Your task to perform on an android device: Open battery settings Image 0: 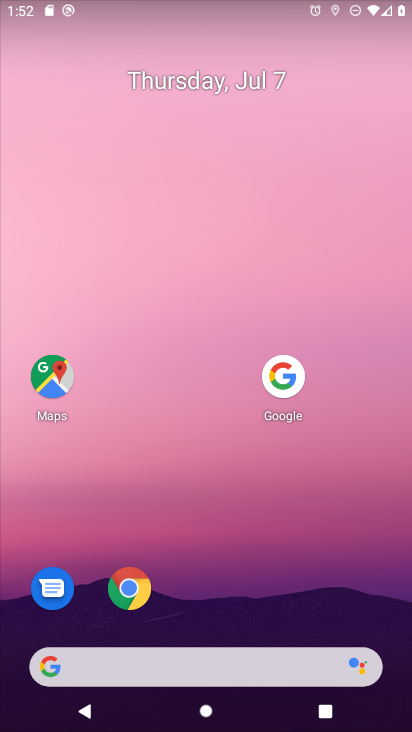
Step 0: drag from (214, 674) to (229, 12)
Your task to perform on an android device: Open battery settings Image 1: 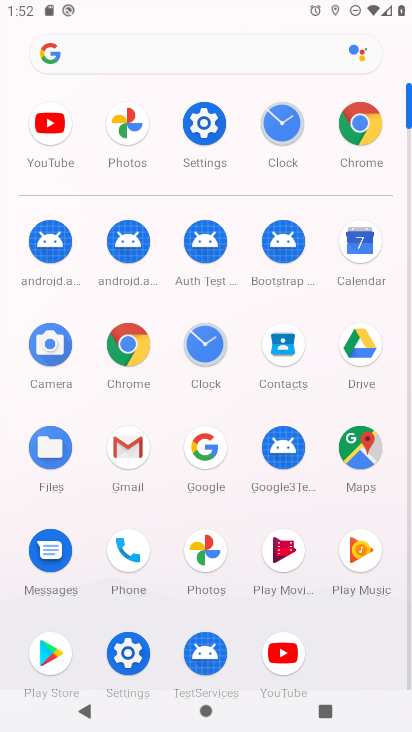
Step 1: click (195, 130)
Your task to perform on an android device: Open battery settings Image 2: 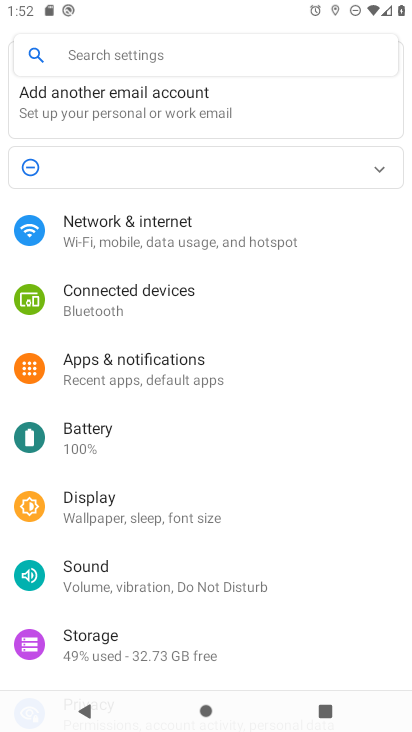
Step 2: click (96, 437)
Your task to perform on an android device: Open battery settings Image 3: 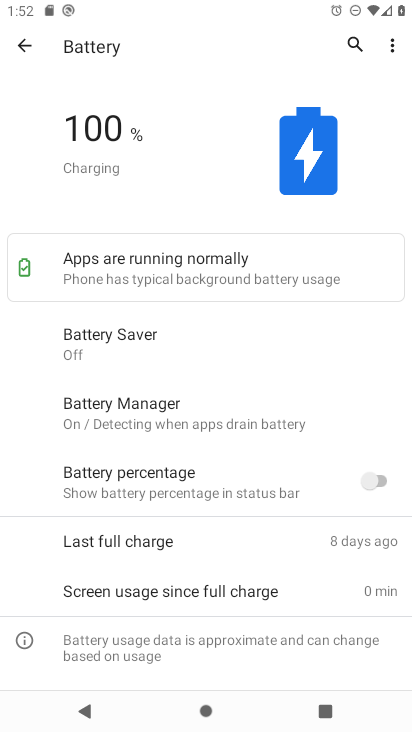
Step 3: task complete